Your task to perform on an android device: move a message to another label in the gmail app Image 0: 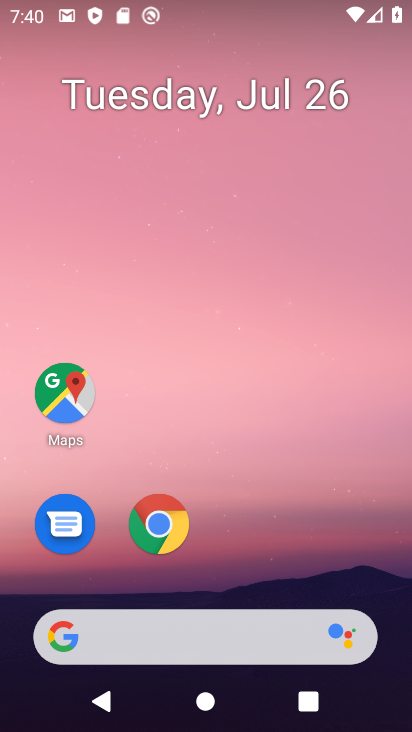
Step 0: drag from (280, 540) to (252, 9)
Your task to perform on an android device: move a message to another label in the gmail app Image 1: 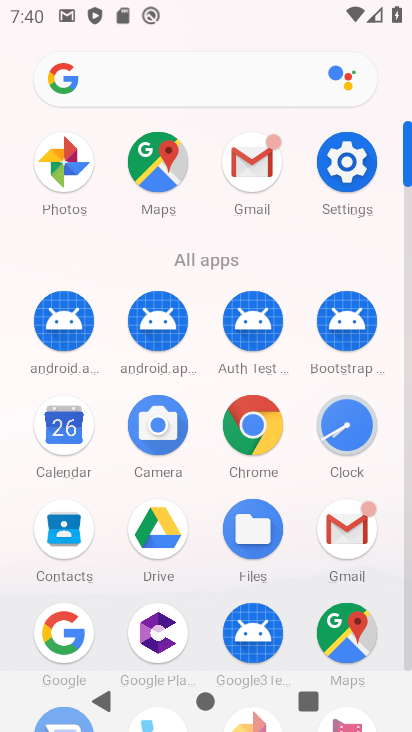
Step 1: click (257, 158)
Your task to perform on an android device: move a message to another label in the gmail app Image 2: 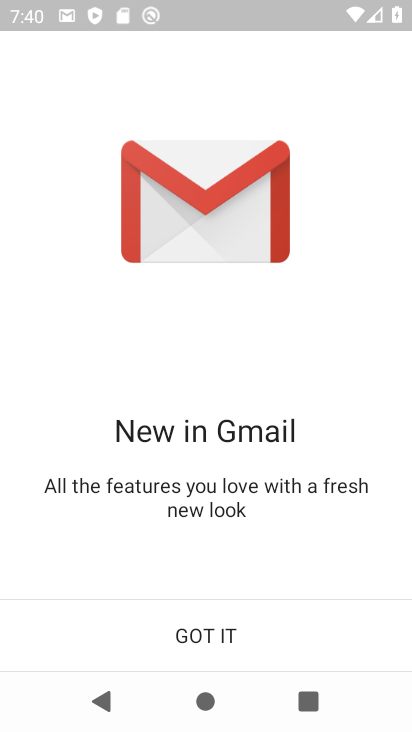
Step 2: click (203, 631)
Your task to perform on an android device: move a message to another label in the gmail app Image 3: 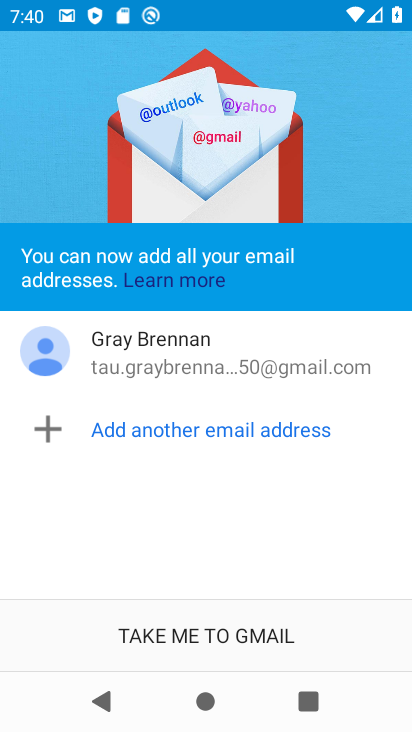
Step 3: click (203, 632)
Your task to perform on an android device: move a message to another label in the gmail app Image 4: 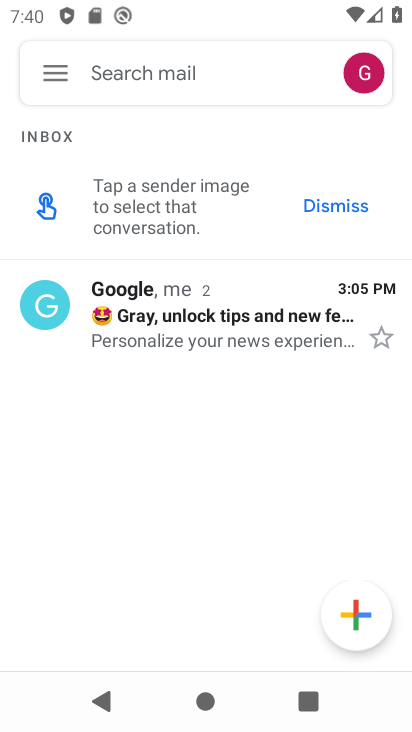
Step 4: click (279, 315)
Your task to perform on an android device: move a message to another label in the gmail app Image 5: 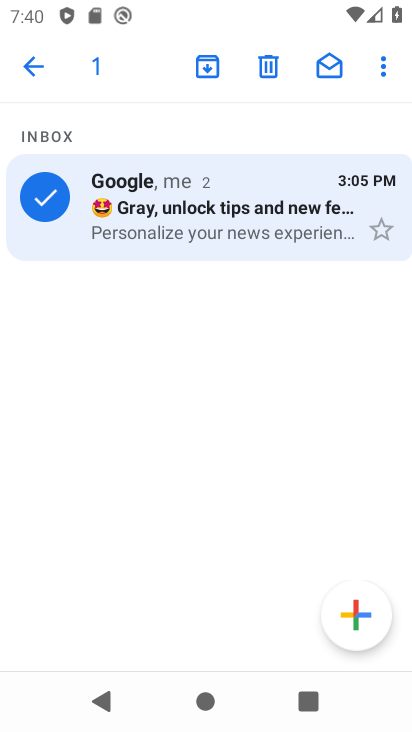
Step 5: click (381, 68)
Your task to perform on an android device: move a message to another label in the gmail app Image 6: 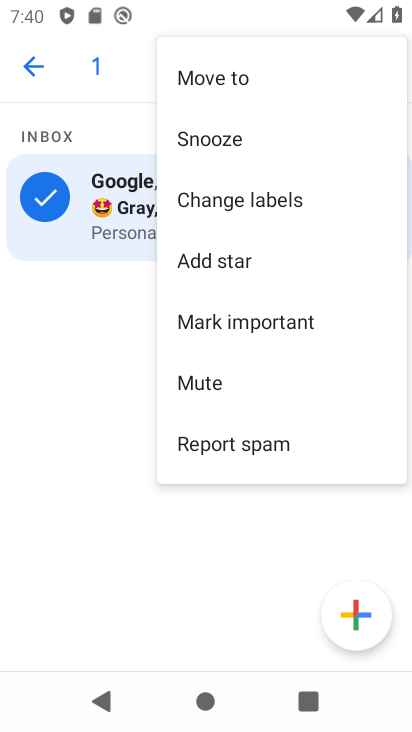
Step 6: click (239, 72)
Your task to perform on an android device: move a message to another label in the gmail app Image 7: 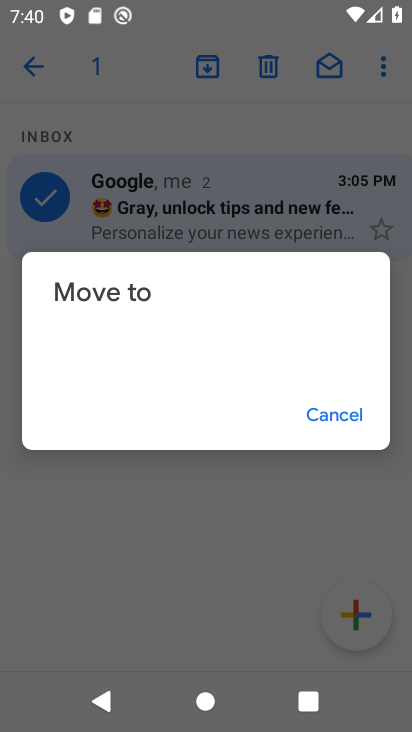
Step 7: click (111, 291)
Your task to perform on an android device: move a message to another label in the gmail app Image 8: 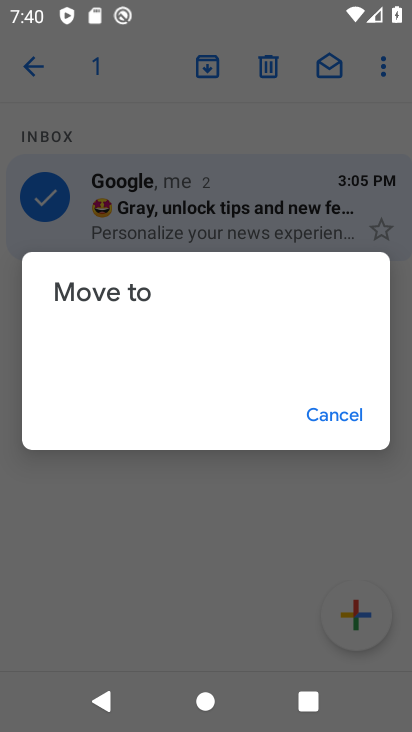
Step 8: click (162, 372)
Your task to perform on an android device: move a message to another label in the gmail app Image 9: 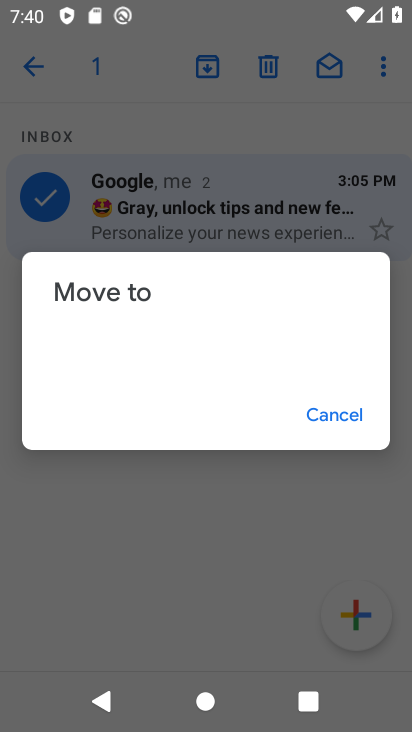
Step 9: click (336, 414)
Your task to perform on an android device: move a message to another label in the gmail app Image 10: 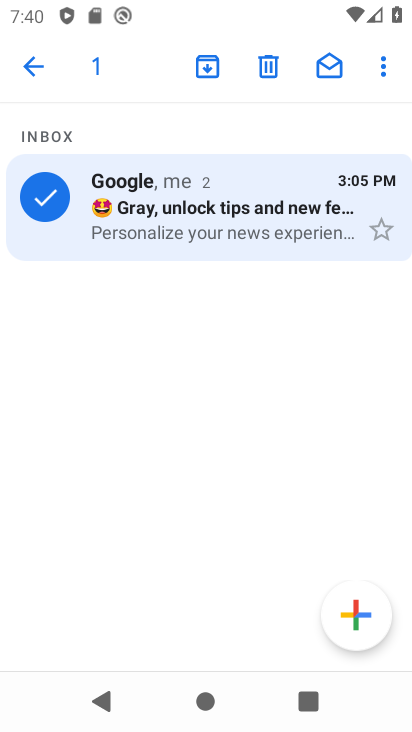
Step 10: click (385, 73)
Your task to perform on an android device: move a message to another label in the gmail app Image 11: 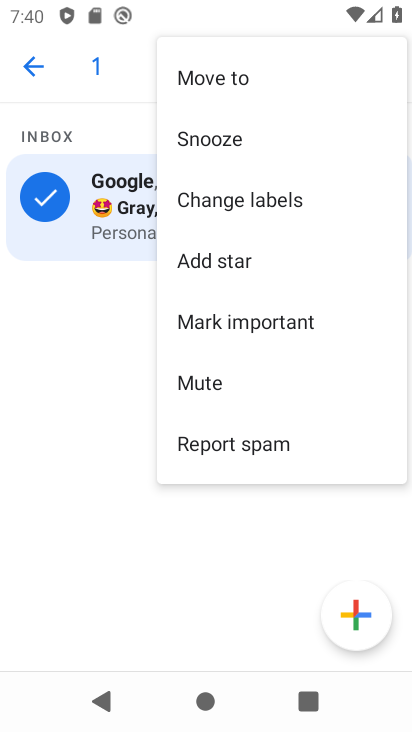
Step 11: click (285, 187)
Your task to perform on an android device: move a message to another label in the gmail app Image 12: 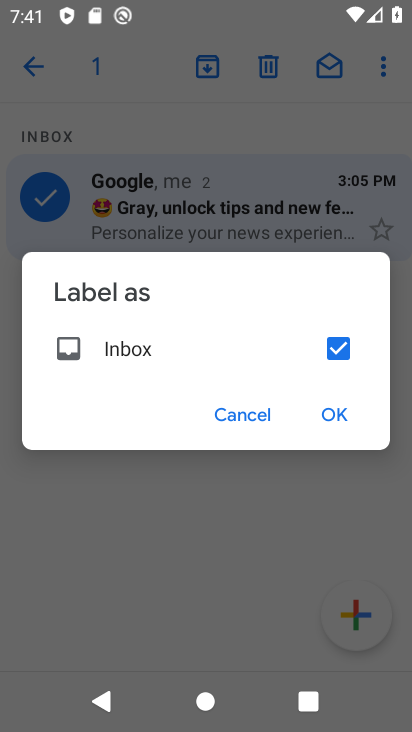
Step 12: click (333, 409)
Your task to perform on an android device: move a message to another label in the gmail app Image 13: 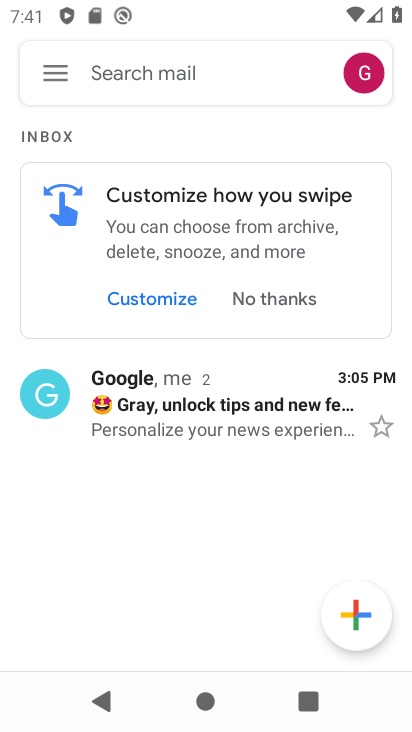
Step 13: click (124, 388)
Your task to perform on an android device: move a message to another label in the gmail app Image 14: 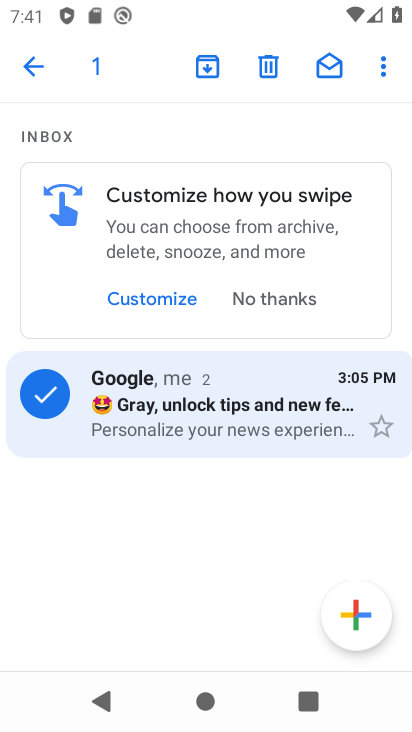
Step 14: click (383, 69)
Your task to perform on an android device: move a message to another label in the gmail app Image 15: 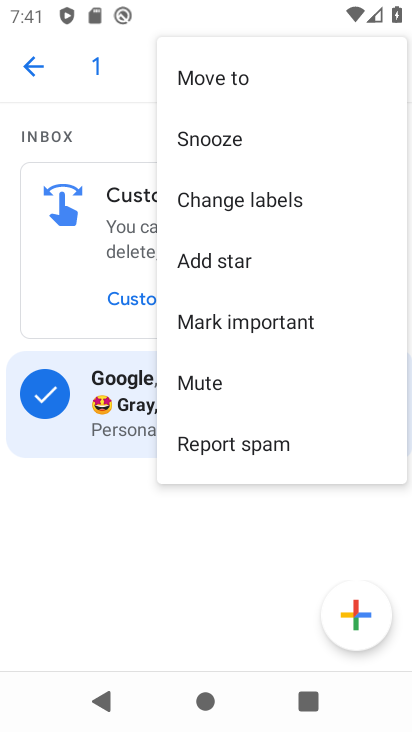
Step 15: click (277, 317)
Your task to perform on an android device: move a message to another label in the gmail app Image 16: 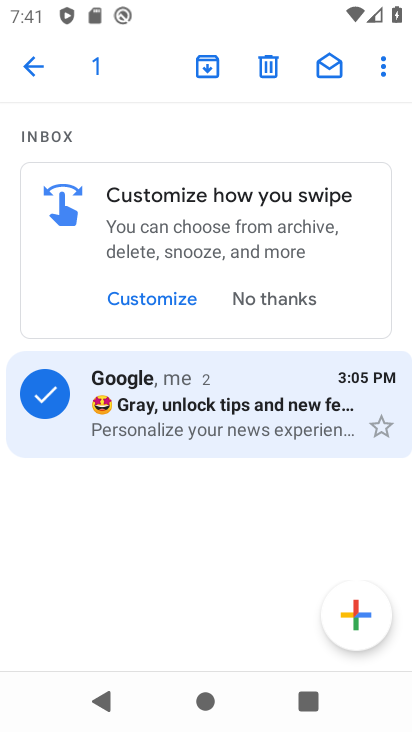
Step 16: click (249, 293)
Your task to perform on an android device: move a message to another label in the gmail app Image 17: 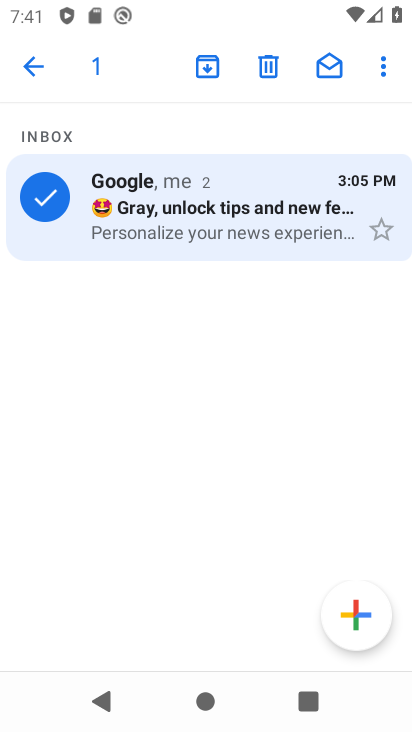
Step 17: task complete